Your task to perform on an android device: turn on notifications settings in the gmail app Image 0: 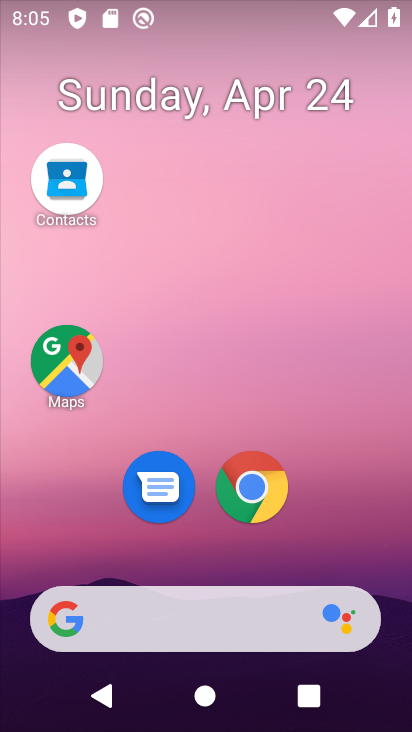
Step 0: drag from (220, 579) to (271, 22)
Your task to perform on an android device: turn on notifications settings in the gmail app Image 1: 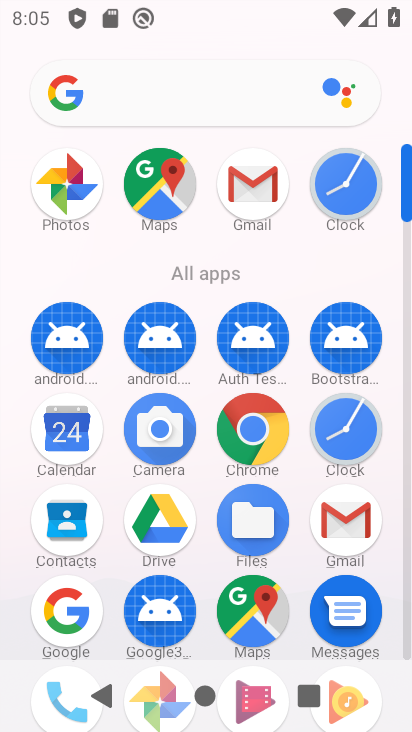
Step 1: click (339, 520)
Your task to perform on an android device: turn on notifications settings in the gmail app Image 2: 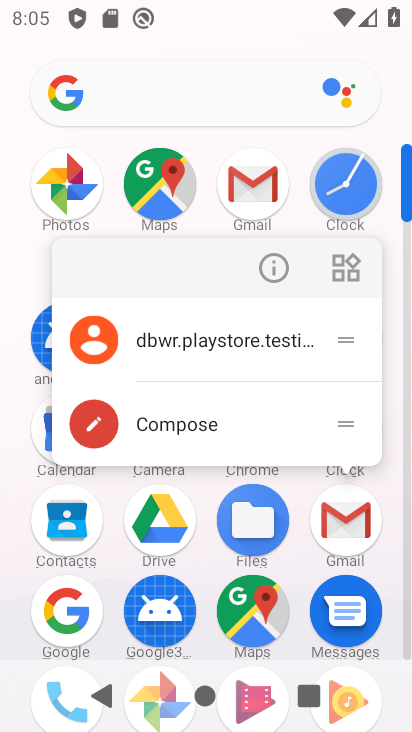
Step 2: click (359, 528)
Your task to perform on an android device: turn on notifications settings in the gmail app Image 3: 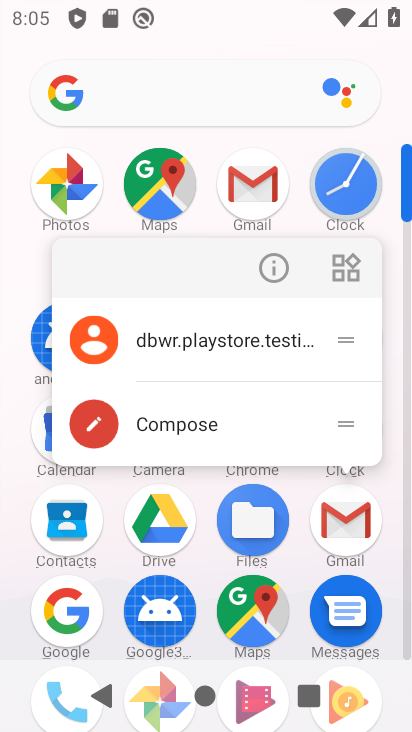
Step 3: click (353, 516)
Your task to perform on an android device: turn on notifications settings in the gmail app Image 4: 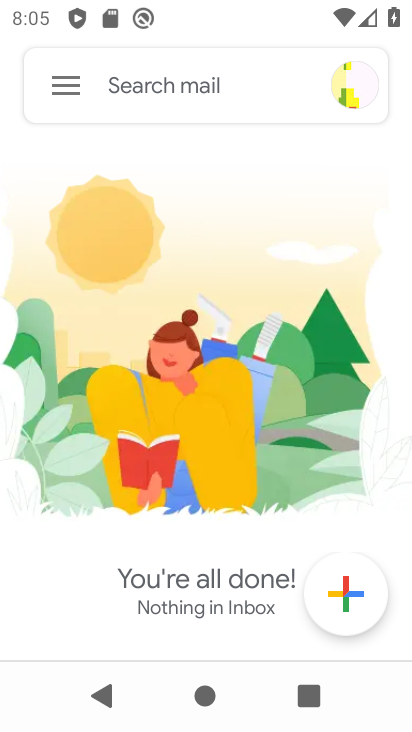
Step 4: click (49, 72)
Your task to perform on an android device: turn on notifications settings in the gmail app Image 5: 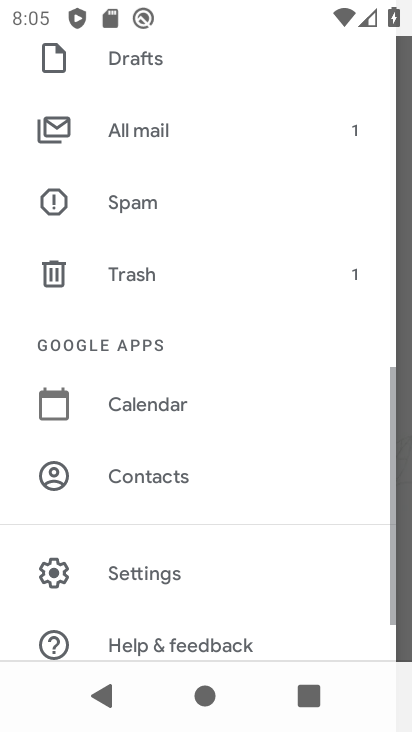
Step 5: click (97, 572)
Your task to perform on an android device: turn on notifications settings in the gmail app Image 6: 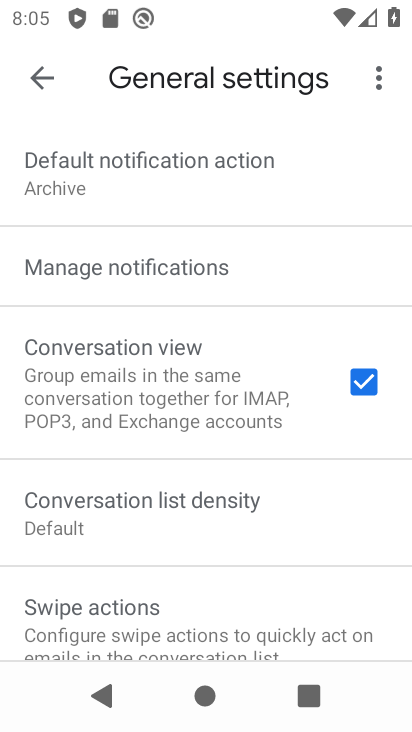
Step 6: click (103, 281)
Your task to perform on an android device: turn on notifications settings in the gmail app Image 7: 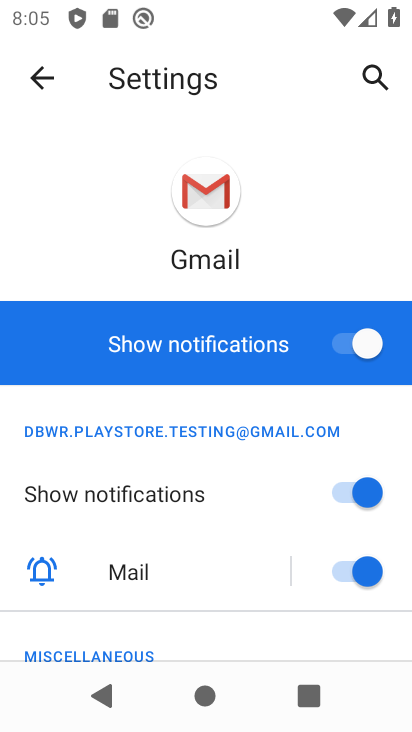
Step 7: task complete